Your task to perform on an android device: Go to display settings Image 0: 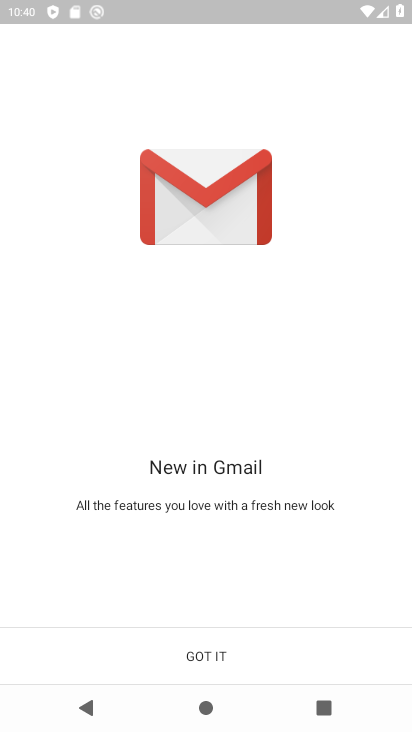
Step 0: press home button
Your task to perform on an android device: Go to display settings Image 1: 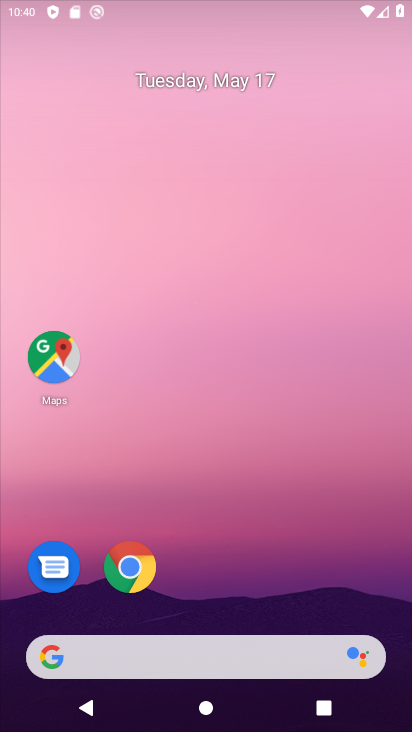
Step 1: click (282, 588)
Your task to perform on an android device: Go to display settings Image 2: 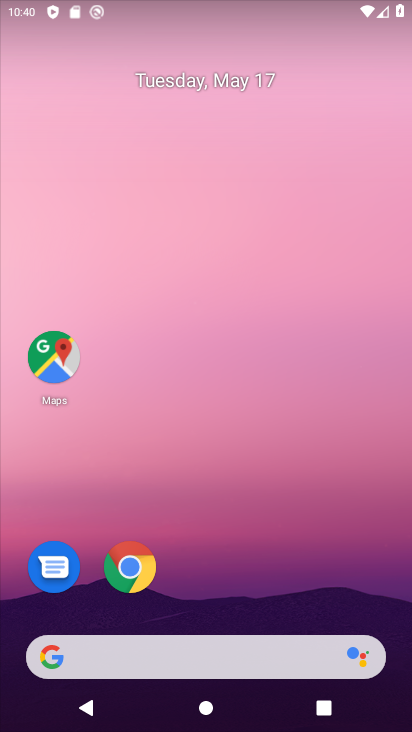
Step 2: drag from (282, 534) to (291, 233)
Your task to perform on an android device: Go to display settings Image 3: 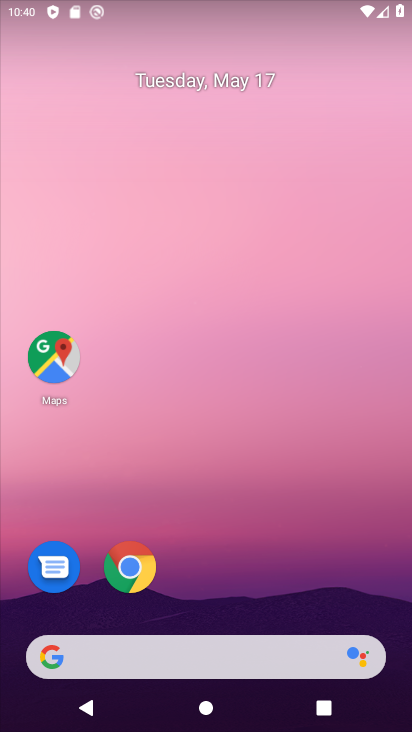
Step 3: drag from (242, 540) to (256, 294)
Your task to perform on an android device: Go to display settings Image 4: 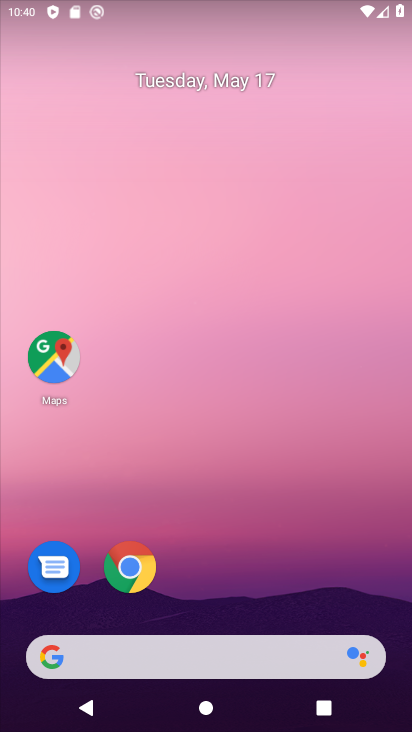
Step 4: drag from (245, 480) to (246, 213)
Your task to perform on an android device: Go to display settings Image 5: 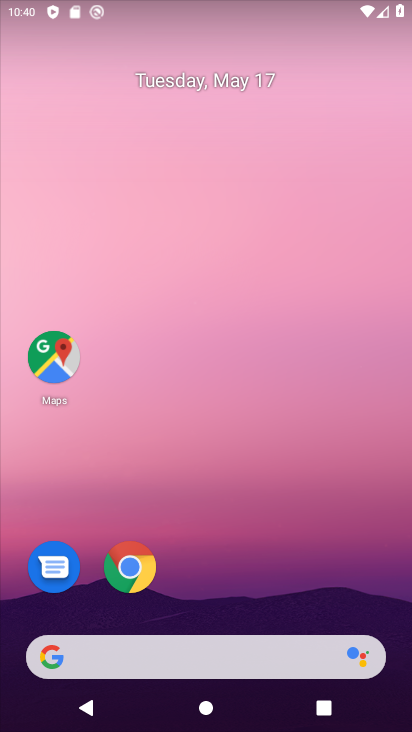
Step 5: drag from (209, 604) to (321, 112)
Your task to perform on an android device: Go to display settings Image 6: 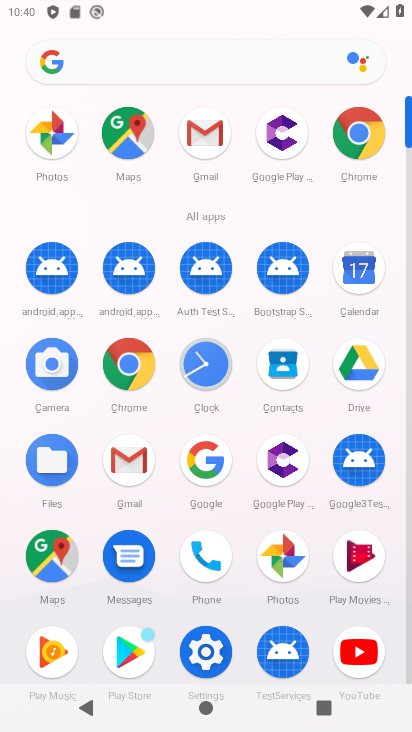
Step 6: click (208, 661)
Your task to perform on an android device: Go to display settings Image 7: 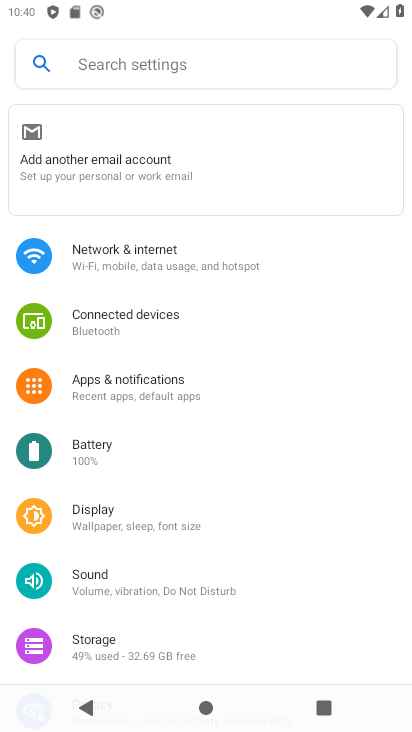
Step 7: drag from (138, 582) to (151, 449)
Your task to perform on an android device: Go to display settings Image 8: 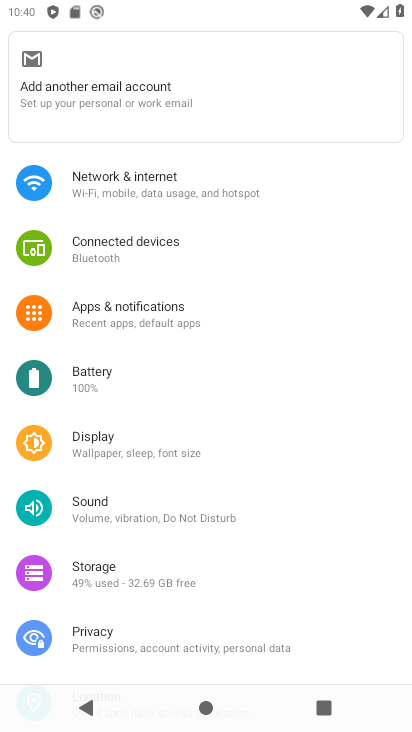
Step 8: click (114, 446)
Your task to perform on an android device: Go to display settings Image 9: 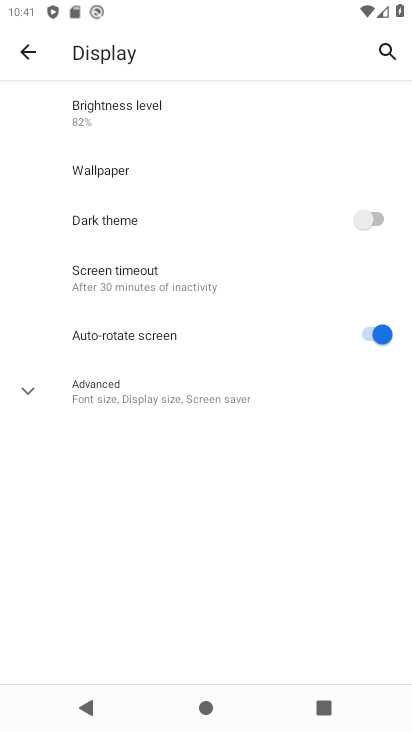
Step 9: task complete